Your task to perform on an android device: choose inbox layout in the gmail app Image 0: 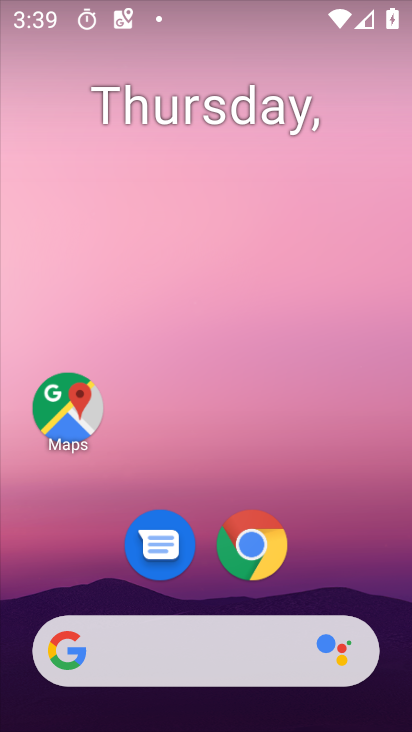
Step 0: drag from (230, 717) to (230, 8)
Your task to perform on an android device: choose inbox layout in the gmail app Image 1: 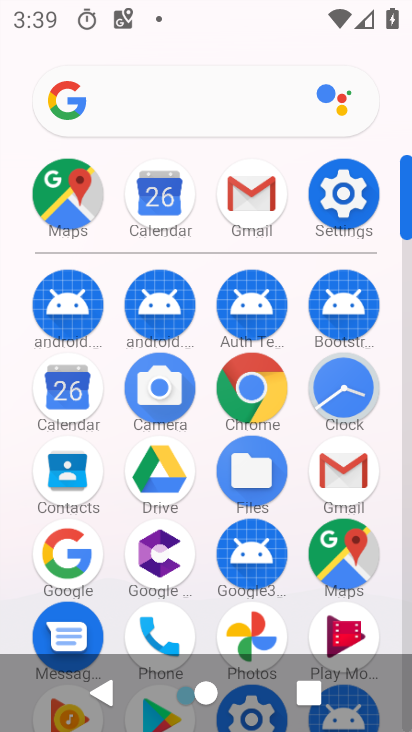
Step 1: click (344, 467)
Your task to perform on an android device: choose inbox layout in the gmail app Image 2: 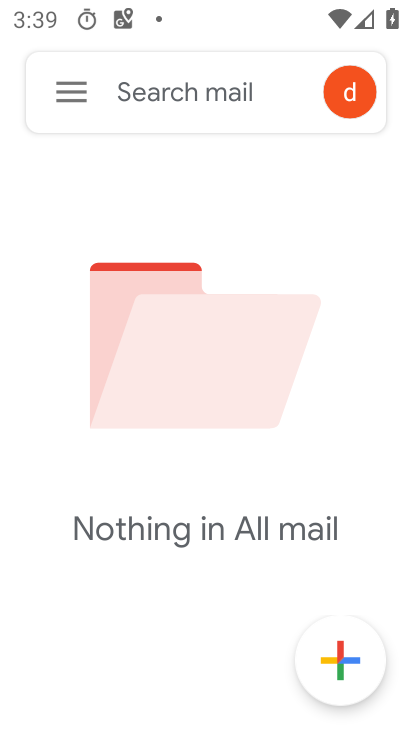
Step 2: click (63, 93)
Your task to perform on an android device: choose inbox layout in the gmail app Image 3: 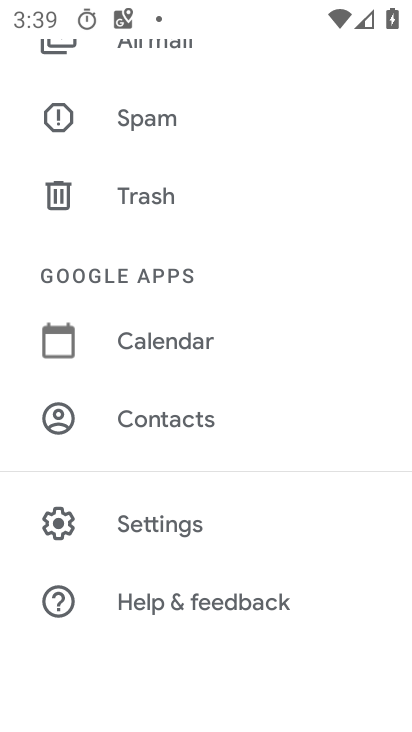
Step 3: click (175, 520)
Your task to perform on an android device: choose inbox layout in the gmail app Image 4: 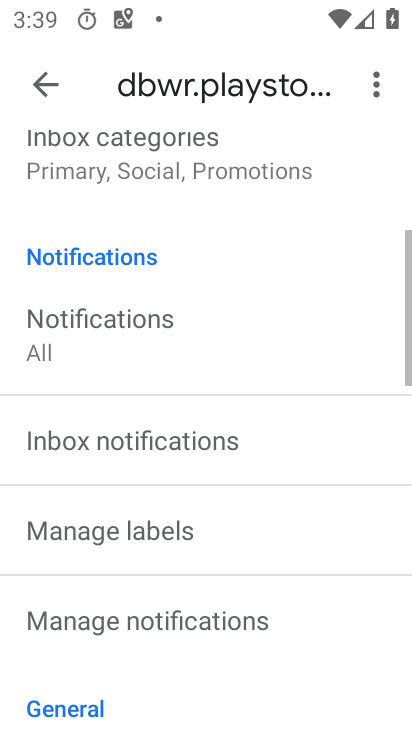
Step 4: drag from (156, 688) to (170, 729)
Your task to perform on an android device: choose inbox layout in the gmail app Image 5: 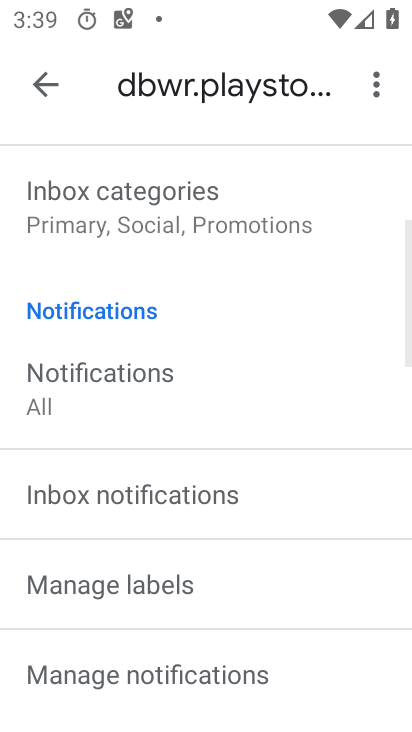
Step 5: drag from (273, 183) to (290, 702)
Your task to perform on an android device: choose inbox layout in the gmail app Image 6: 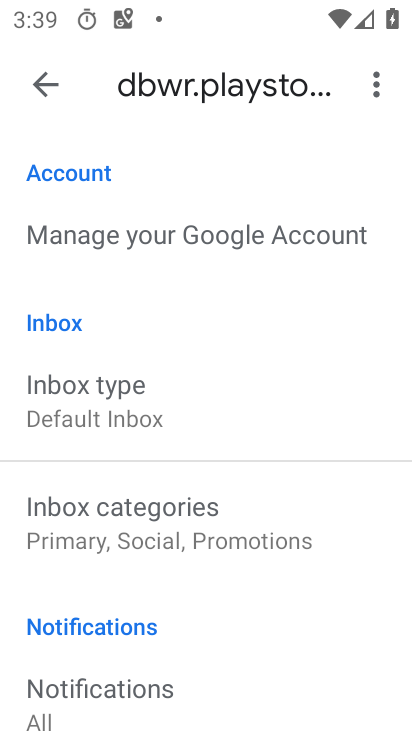
Step 6: drag from (216, 192) to (228, 662)
Your task to perform on an android device: choose inbox layout in the gmail app Image 7: 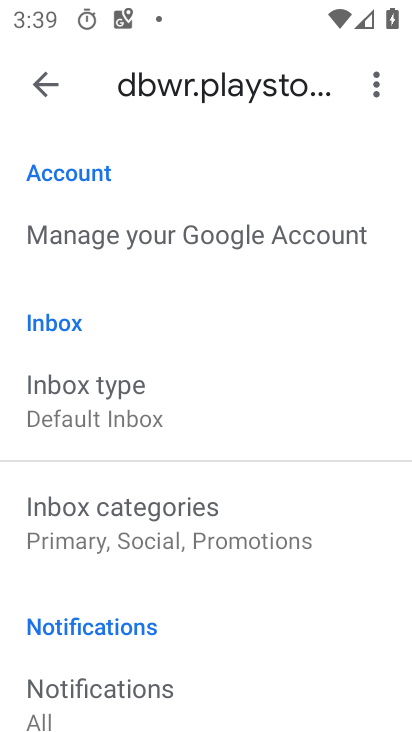
Step 7: drag from (92, 183) to (111, 523)
Your task to perform on an android device: choose inbox layout in the gmail app Image 8: 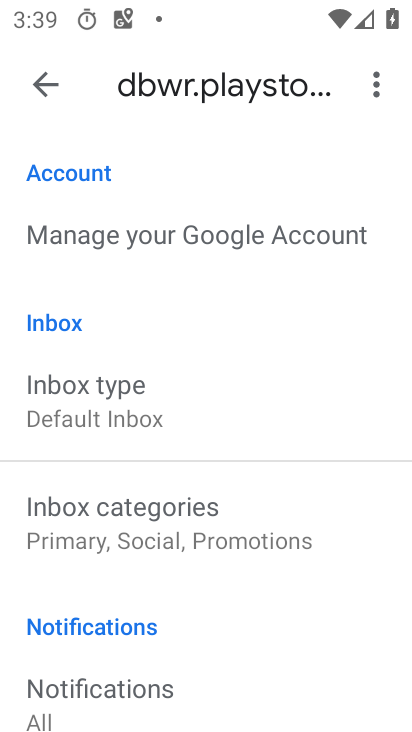
Step 8: click (92, 410)
Your task to perform on an android device: choose inbox layout in the gmail app Image 9: 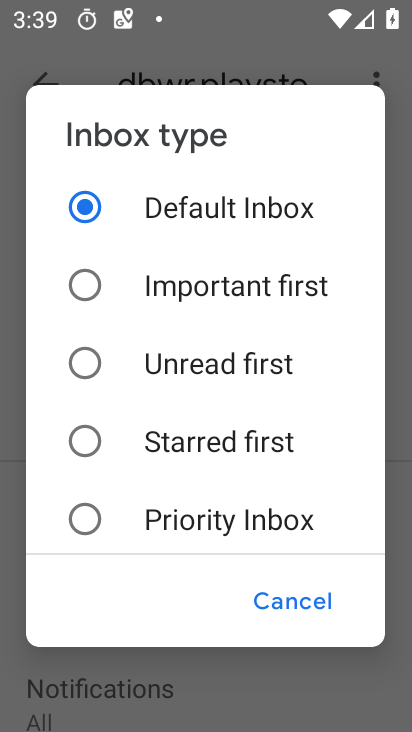
Step 9: click (85, 282)
Your task to perform on an android device: choose inbox layout in the gmail app Image 10: 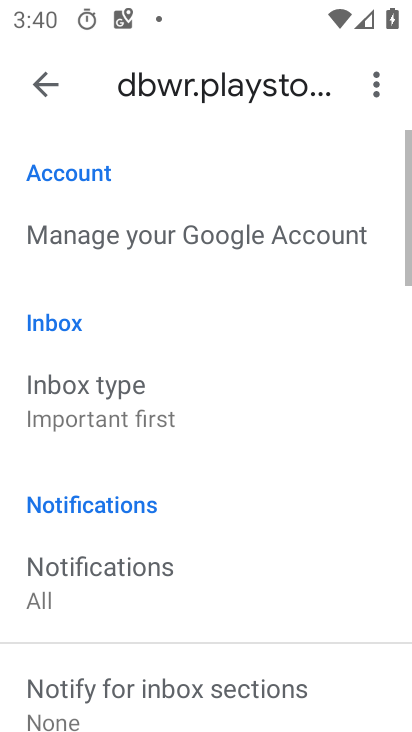
Step 10: task complete